Your task to perform on an android device: toggle priority inbox in the gmail app Image 0: 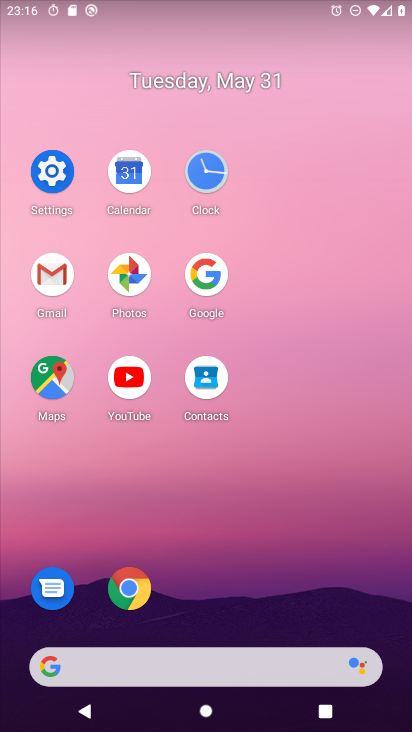
Step 0: click (55, 277)
Your task to perform on an android device: toggle priority inbox in the gmail app Image 1: 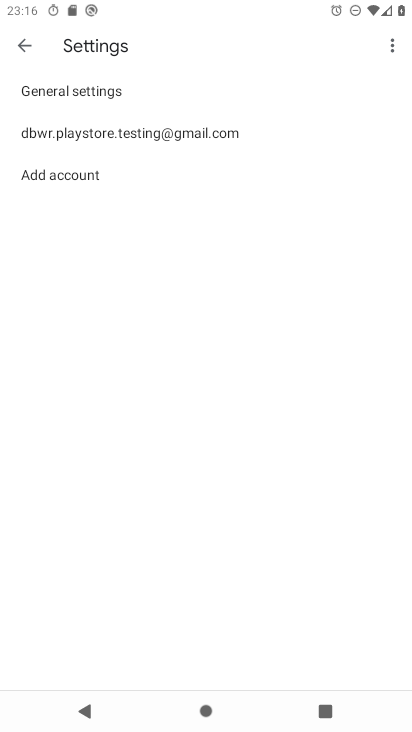
Step 1: click (45, 130)
Your task to perform on an android device: toggle priority inbox in the gmail app Image 2: 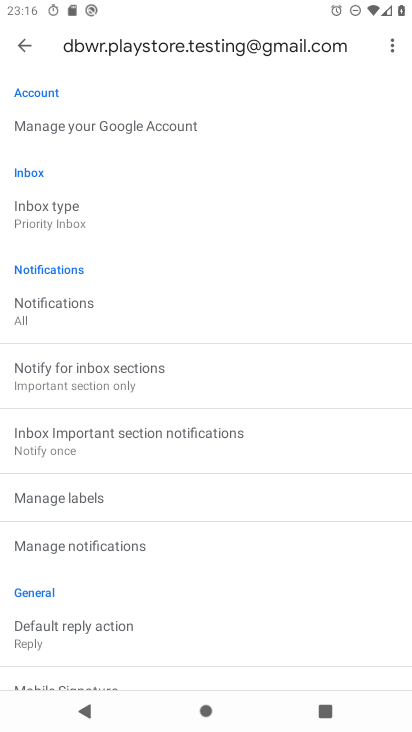
Step 2: click (108, 220)
Your task to perform on an android device: toggle priority inbox in the gmail app Image 3: 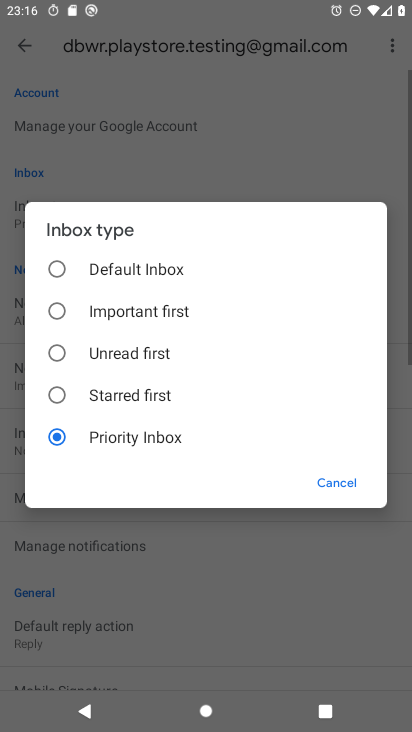
Step 3: click (132, 265)
Your task to perform on an android device: toggle priority inbox in the gmail app Image 4: 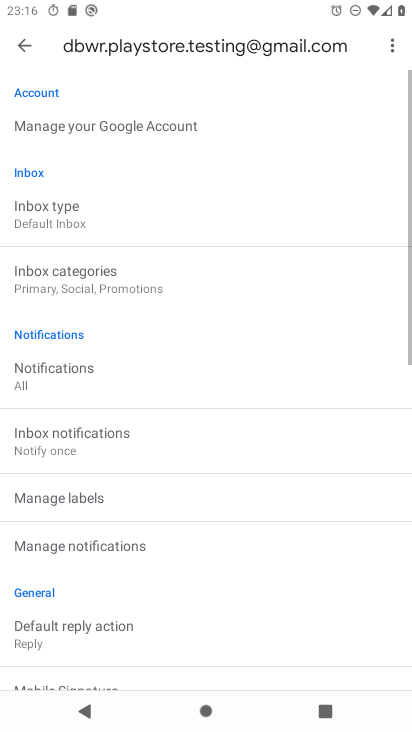
Step 4: task complete